Your task to perform on an android device: When is my next appointment? Image 0: 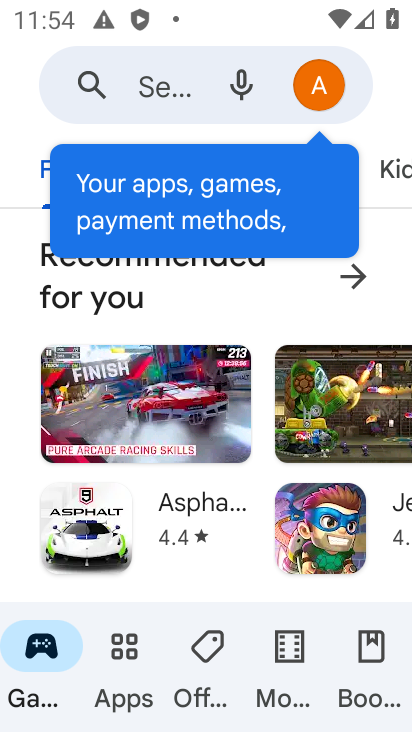
Step 0: press home button
Your task to perform on an android device: When is my next appointment? Image 1: 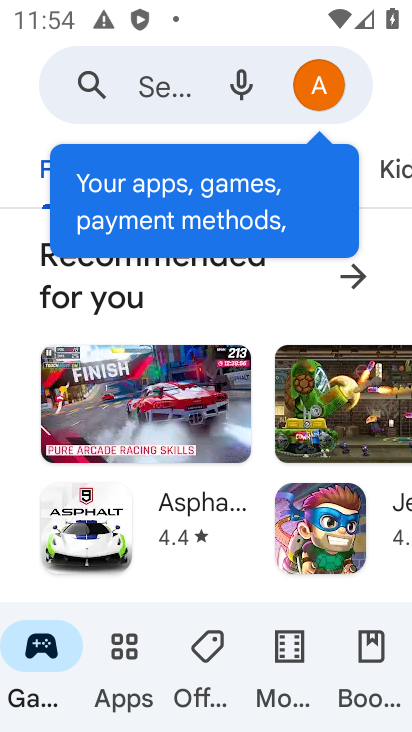
Step 1: press home button
Your task to perform on an android device: When is my next appointment? Image 2: 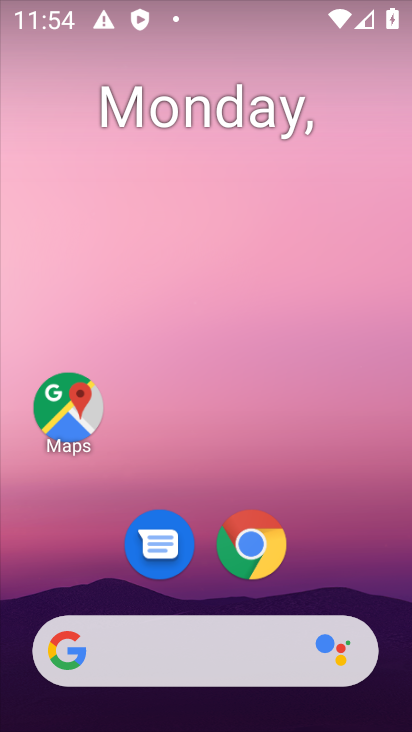
Step 2: drag from (354, 514) to (318, 8)
Your task to perform on an android device: When is my next appointment? Image 3: 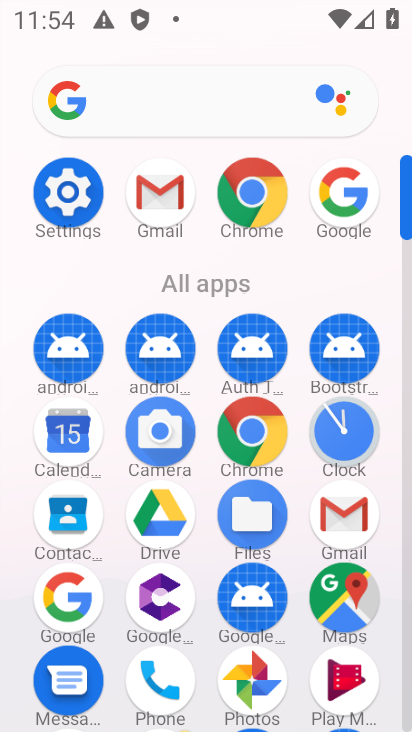
Step 3: click (63, 440)
Your task to perform on an android device: When is my next appointment? Image 4: 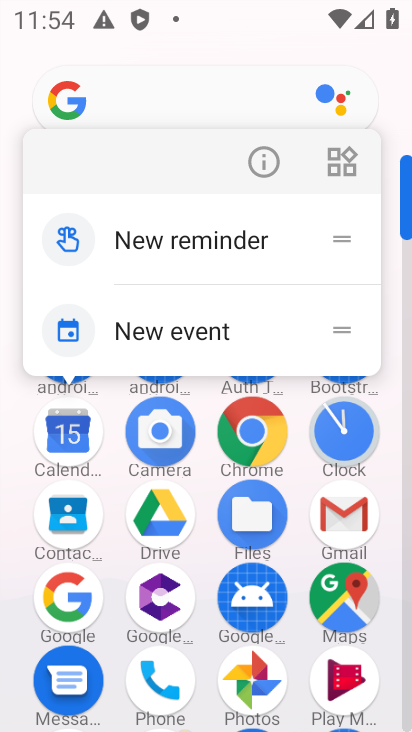
Step 4: click (62, 439)
Your task to perform on an android device: When is my next appointment? Image 5: 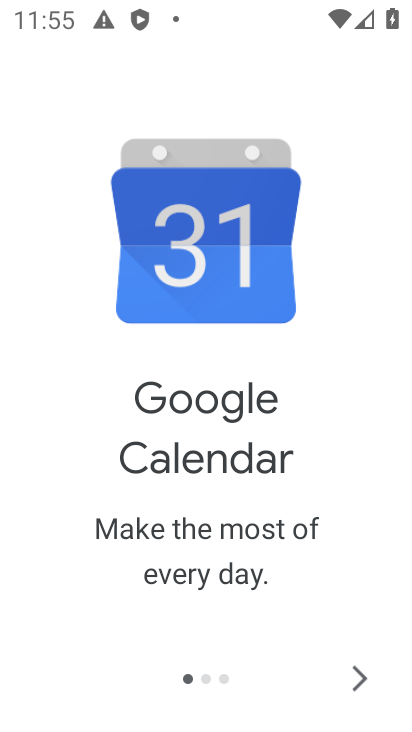
Step 5: click (369, 672)
Your task to perform on an android device: When is my next appointment? Image 6: 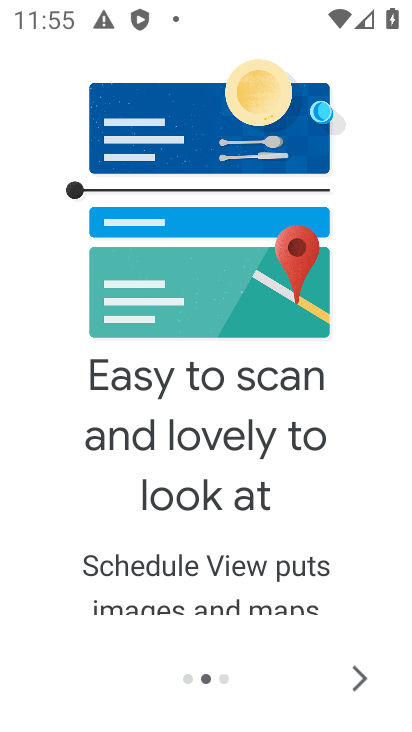
Step 6: click (367, 670)
Your task to perform on an android device: When is my next appointment? Image 7: 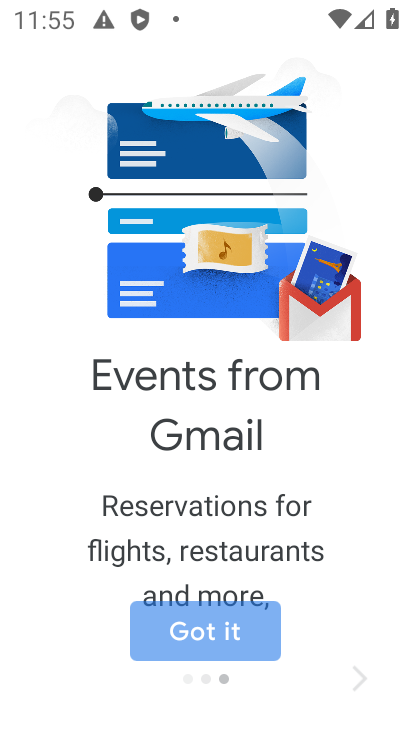
Step 7: click (367, 670)
Your task to perform on an android device: When is my next appointment? Image 8: 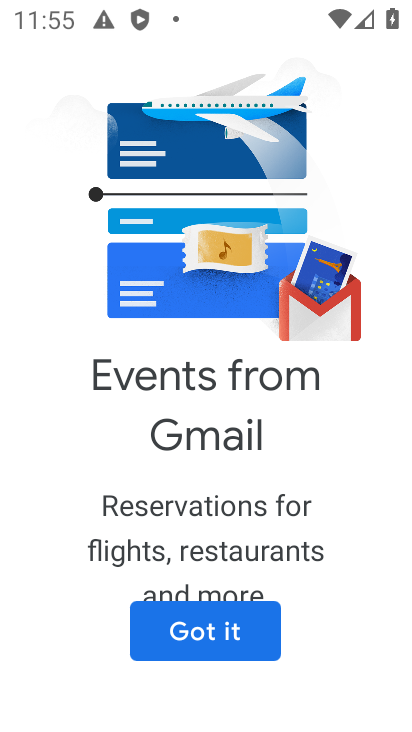
Step 8: click (256, 639)
Your task to perform on an android device: When is my next appointment? Image 9: 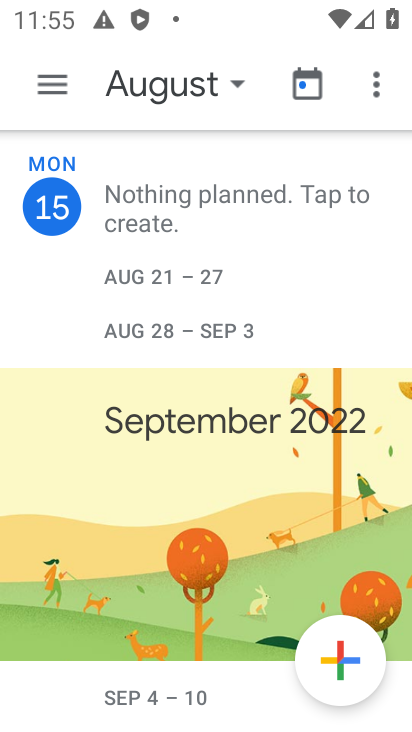
Step 9: click (56, 76)
Your task to perform on an android device: When is my next appointment? Image 10: 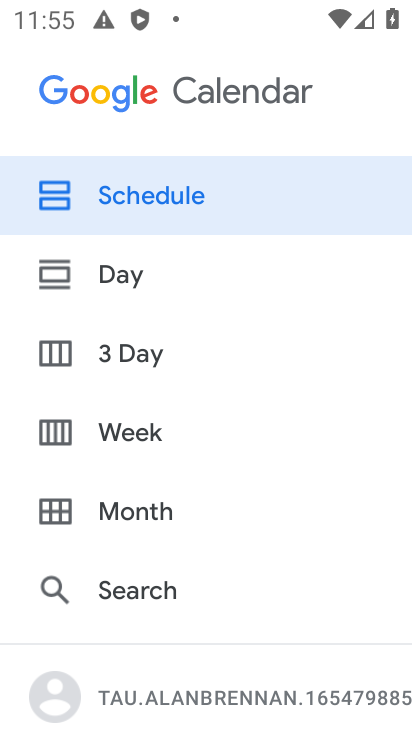
Step 10: click (139, 421)
Your task to perform on an android device: When is my next appointment? Image 11: 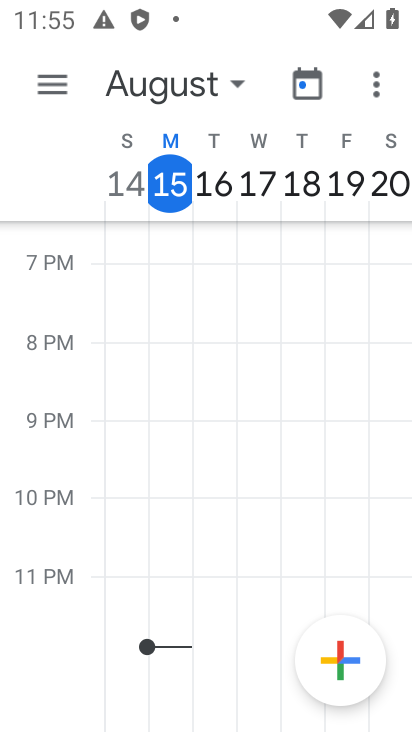
Step 11: task complete